Your task to perform on an android device: turn on notifications settings in the gmail app Image 0: 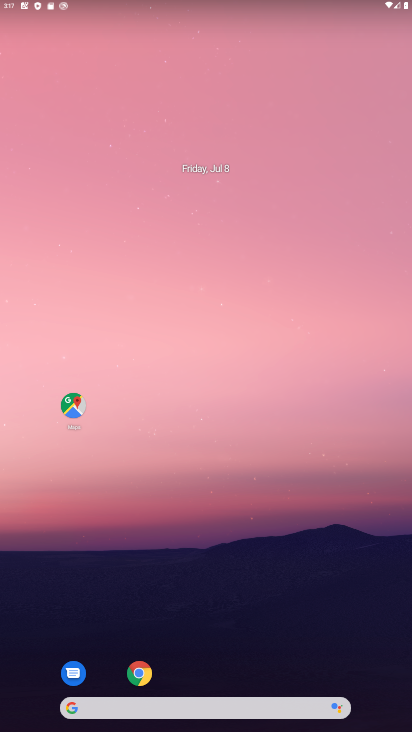
Step 0: drag from (198, 594) to (221, 143)
Your task to perform on an android device: turn on notifications settings in the gmail app Image 1: 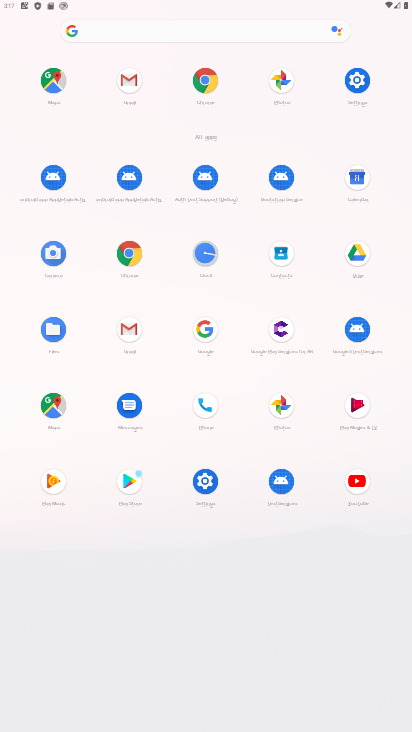
Step 1: click (118, 328)
Your task to perform on an android device: turn on notifications settings in the gmail app Image 2: 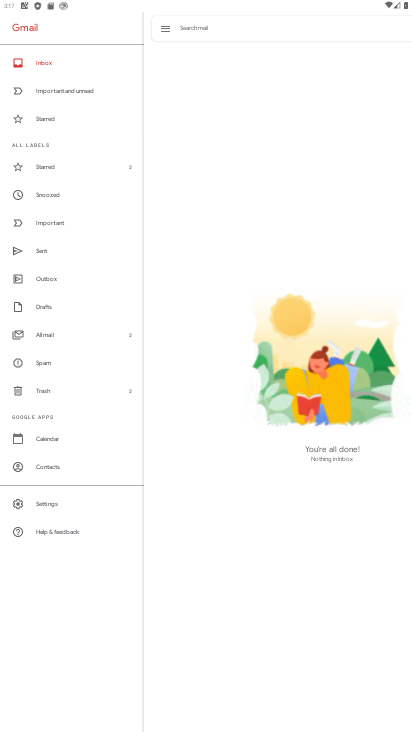
Step 2: click (55, 506)
Your task to perform on an android device: turn on notifications settings in the gmail app Image 3: 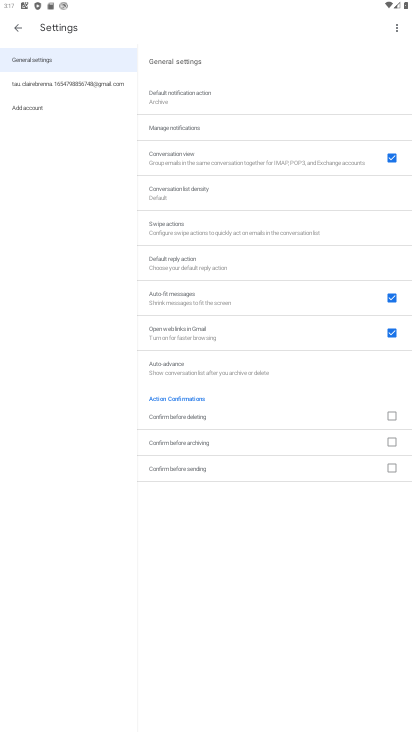
Step 3: click (222, 131)
Your task to perform on an android device: turn on notifications settings in the gmail app Image 4: 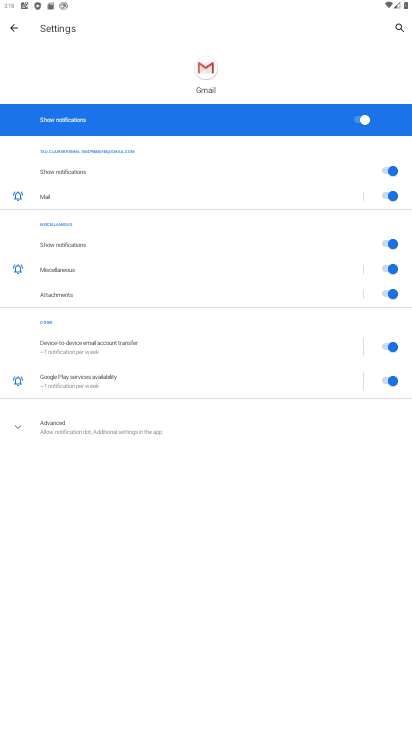
Step 4: task complete